Your task to perform on an android device: turn off priority inbox in the gmail app Image 0: 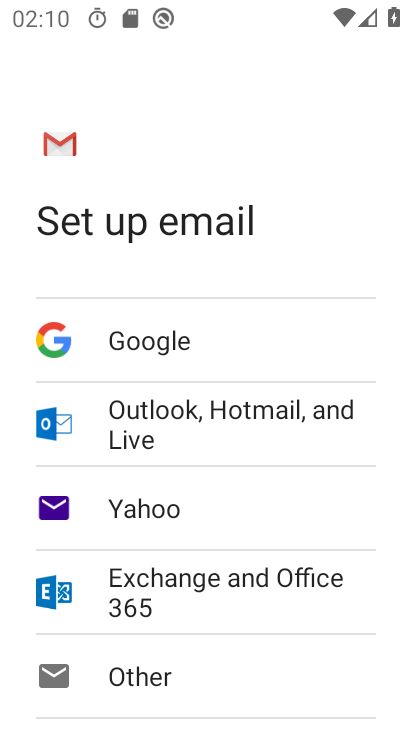
Step 0: press home button
Your task to perform on an android device: turn off priority inbox in the gmail app Image 1: 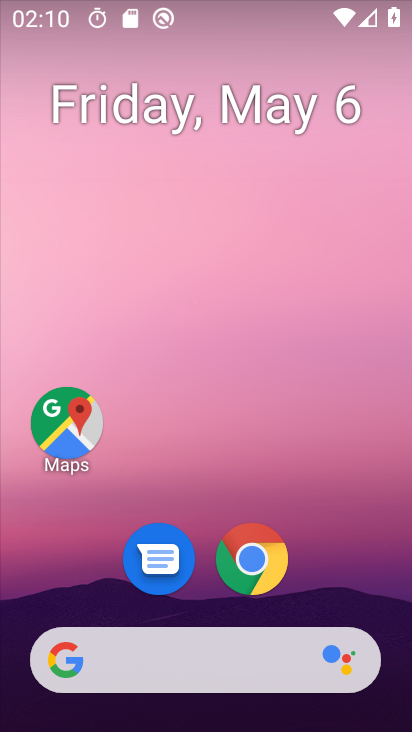
Step 1: drag from (334, 609) to (280, 5)
Your task to perform on an android device: turn off priority inbox in the gmail app Image 2: 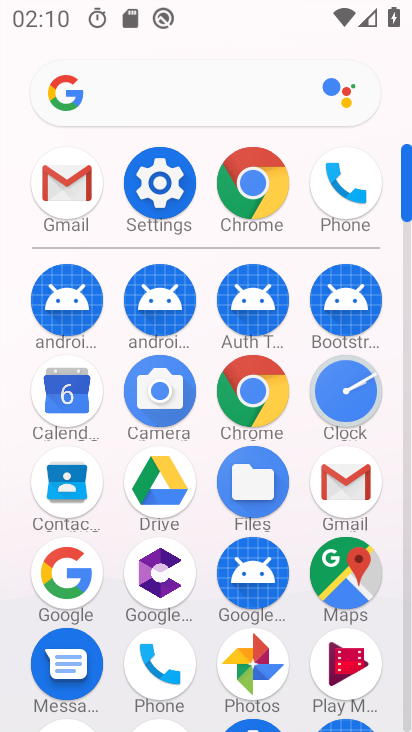
Step 2: click (328, 468)
Your task to perform on an android device: turn off priority inbox in the gmail app Image 3: 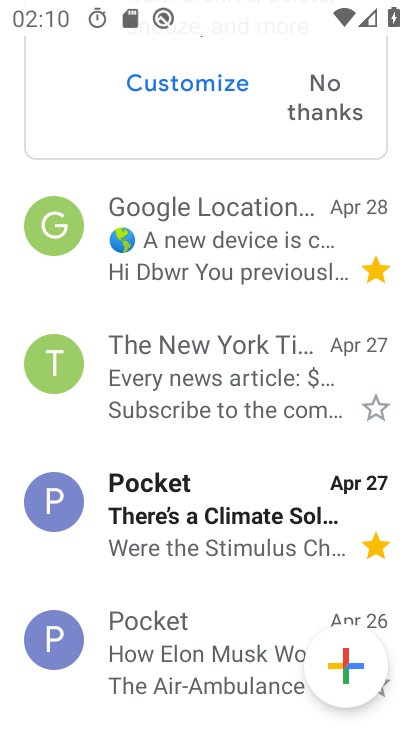
Step 3: drag from (235, 125) to (273, 520)
Your task to perform on an android device: turn off priority inbox in the gmail app Image 4: 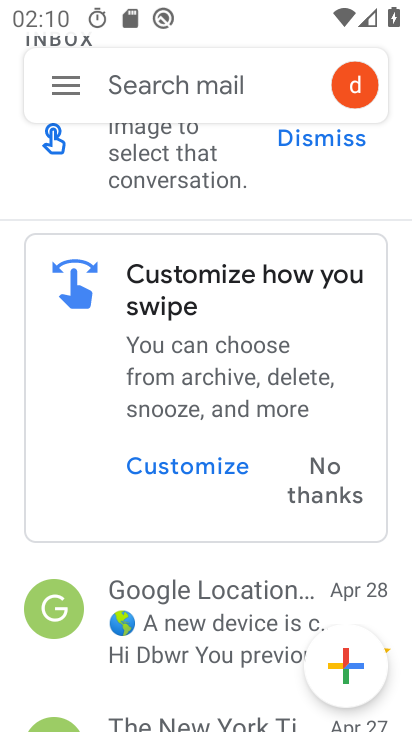
Step 4: drag from (289, 214) to (264, 640)
Your task to perform on an android device: turn off priority inbox in the gmail app Image 5: 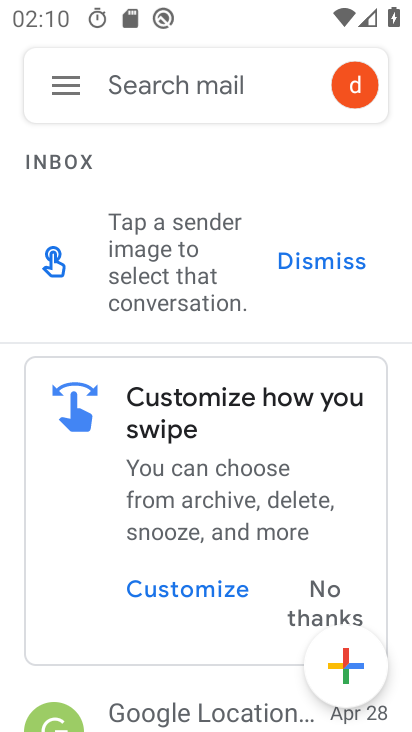
Step 5: click (57, 79)
Your task to perform on an android device: turn off priority inbox in the gmail app Image 6: 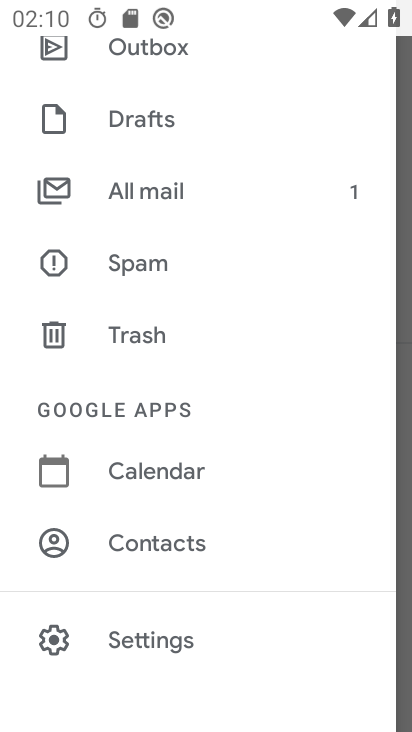
Step 6: click (179, 631)
Your task to perform on an android device: turn off priority inbox in the gmail app Image 7: 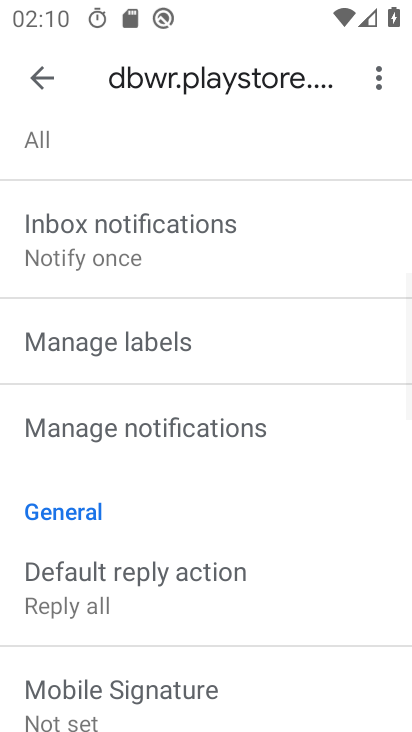
Step 7: drag from (157, 228) to (176, 727)
Your task to perform on an android device: turn off priority inbox in the gmail app Image 8: 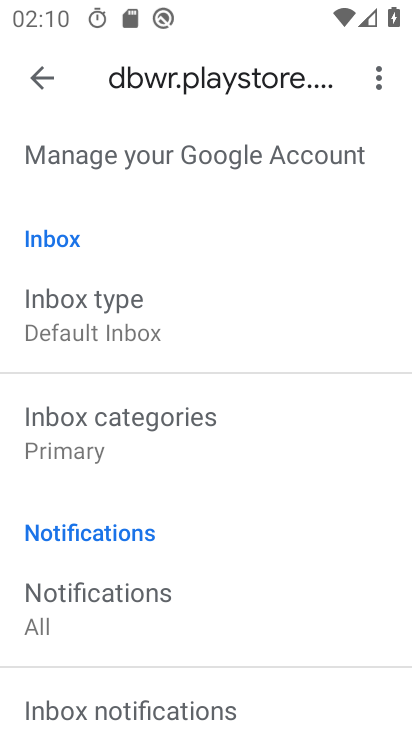
Step 8: click (139, 324)
Your task to perform on an android device: turn off priority inbox in the gmail app Image 9: 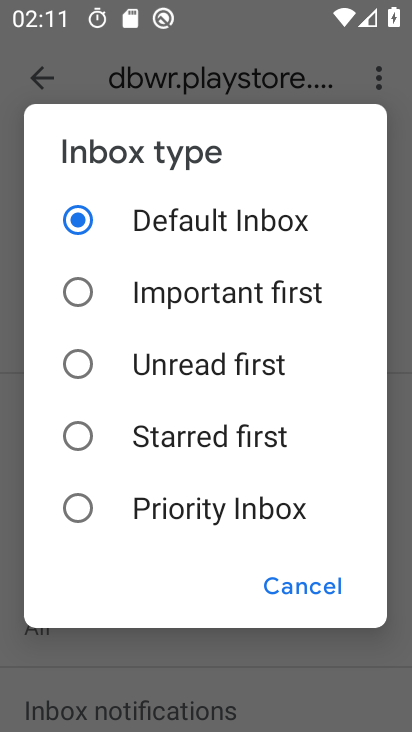
Step 9: click (84, 502)
Your task to perform on an android device: turn off priority inbox in the gmail app Image 10: 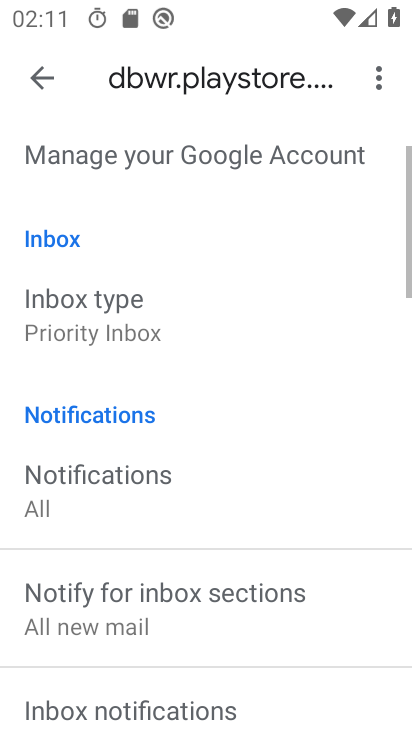
Step 10: click (75, 339)
Your task to perform on an android device: turn off priority inbox in the gmail app Image 11: 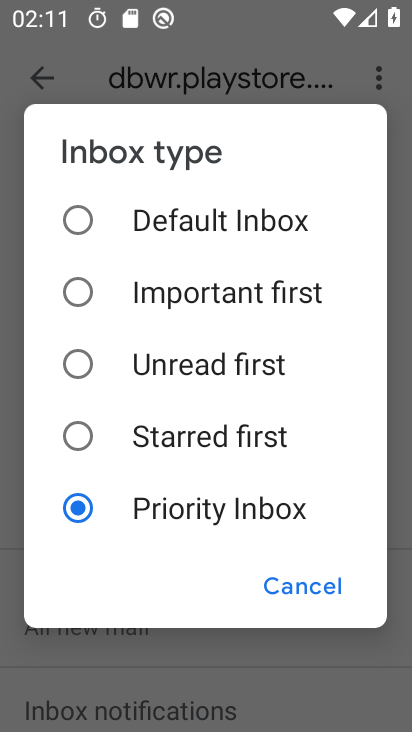
Step 11: click (76, 292)
Your task to perform on an android device: turn off priority inbox in the gmail app Image 12: 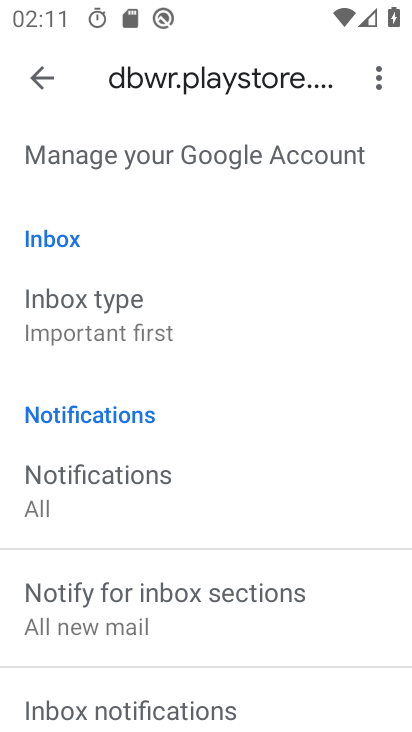
Step 12: task complete